Your task to perform on an android device: add a label to a message in the gmail app Image 0: 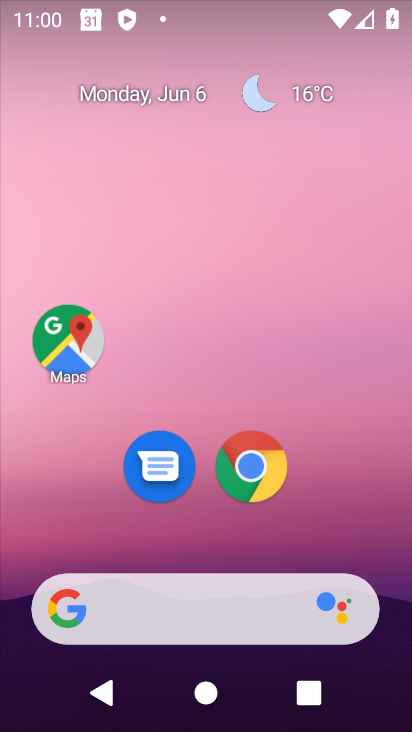
Step 0: press home button
Your task to perform on an android device: add a label to a message in the gmail app Image 1: 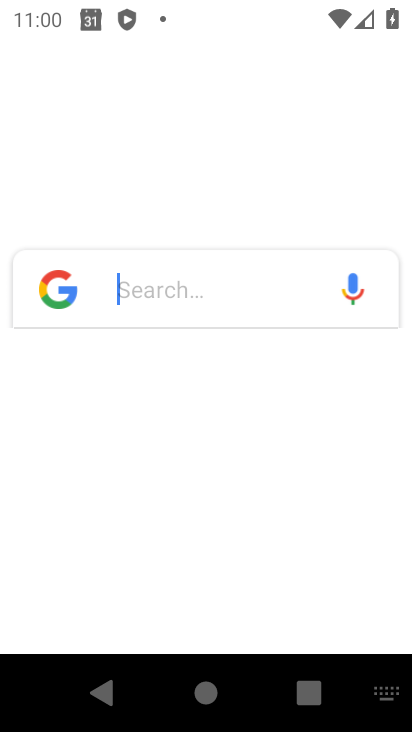
Step 1: drag from (326, 524) to (345, 15)
Your task to perform on an android device: add a label to a message in the gmail app Image 2: 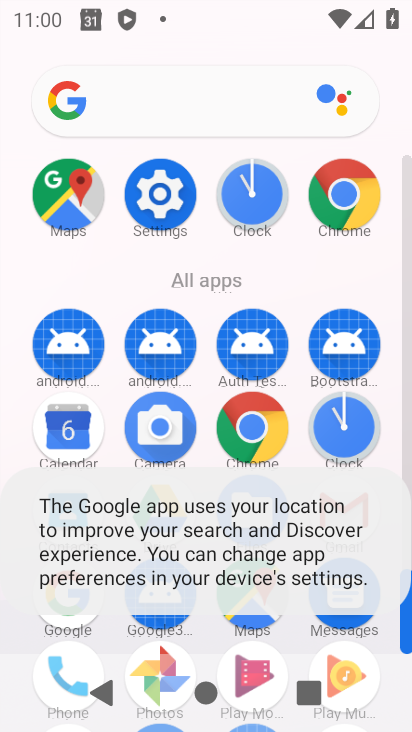
Step 2: click (331, 494)
Your task to perform on an android device: add a label to a message in the gmail app Image 3: 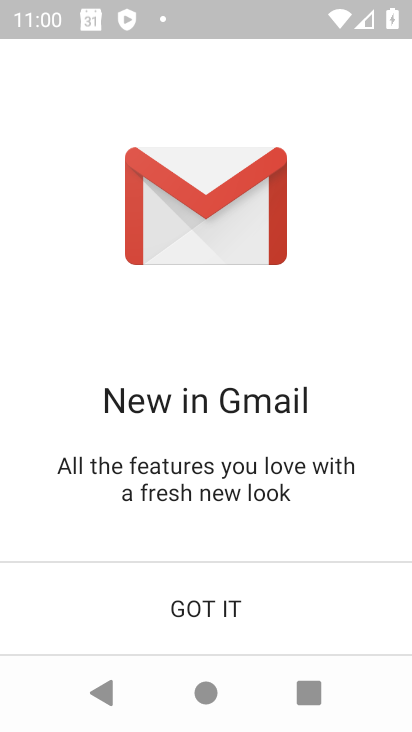
Step 3: click (270, 583)
Your task to perform on an android device: add a label to a message in the gmail app Image 4: 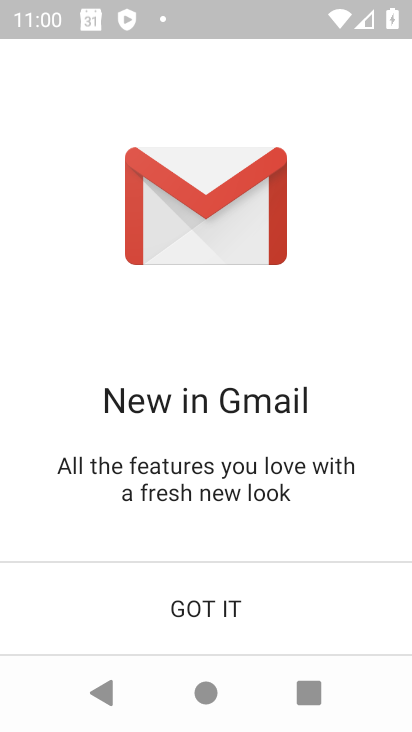
Step 4: click (270, 583)
Your task to perform on an android device: add a label to a message in the gmail app Image 5: 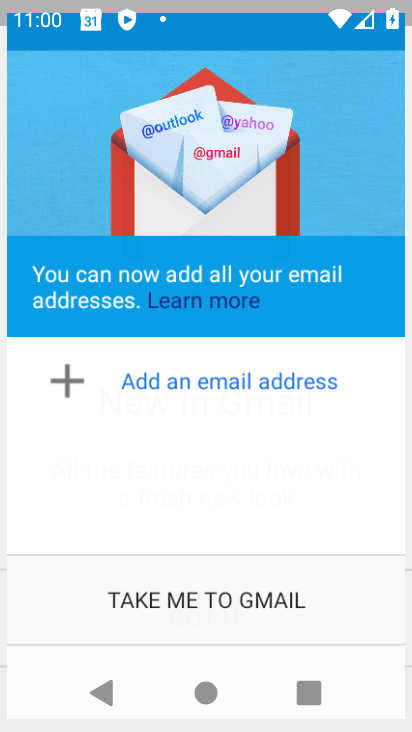
Step 5: click (270, 583)
Your task to perform on an android device: add a label to a message in the gmail app Image 6: 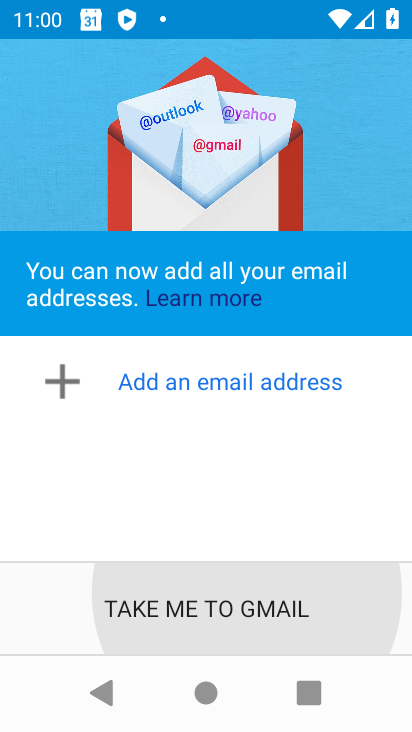
Step 6: click (270, 583)
Your task to perform on an android device: add a label to a message in the gmail app Image 7: 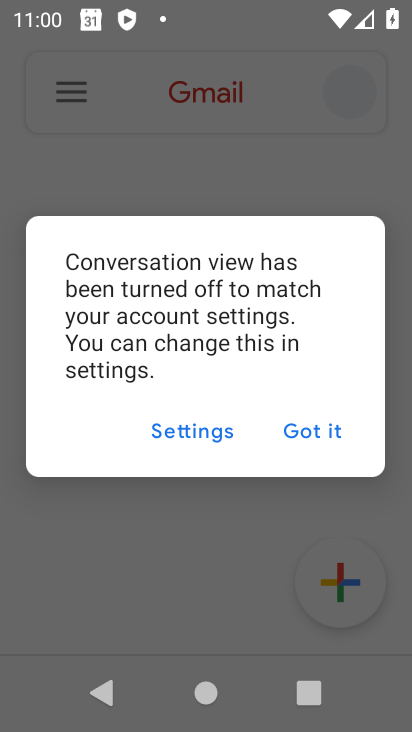
Step 7: click (303, 440)
Your task to perform on an android device: add a label to a message in the gmail app Image 8: 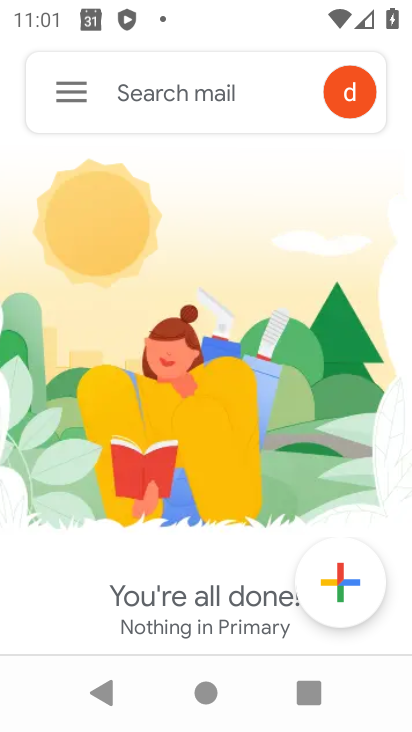
Step 8: task complete